Your task to perform on an android device: Set the phone to "Do not disturb". Image 0: 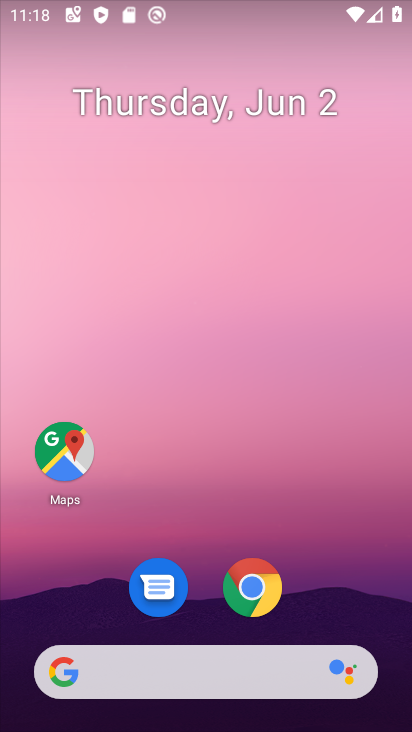
Step 0: drag from (383, 620) to (85, 42)
Your task to perform on an android device: Set the phone to "Do not disturb". Image 1: 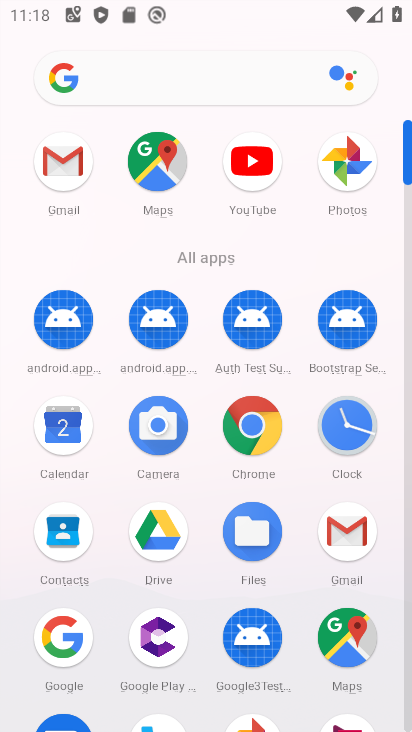
Step 1: drag from (200, 624) to (188, 211)
Your task to perform on an android device: Set the phone to "Do not disturb". Image 2: 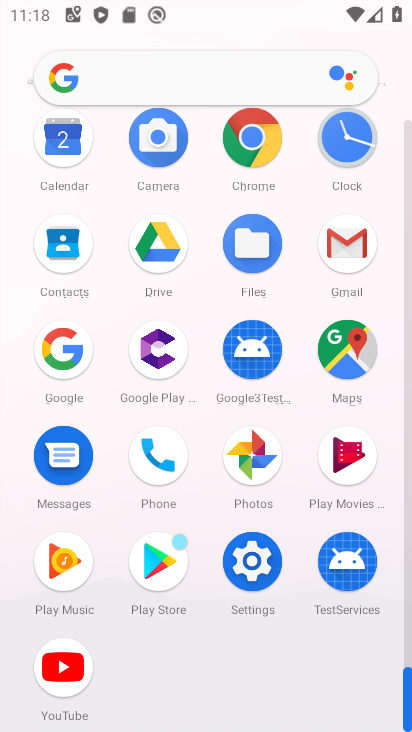
Step 2: click (239, 541)
Your task to perform on an android device: Set the phone to "Do not disturb". Image 3: 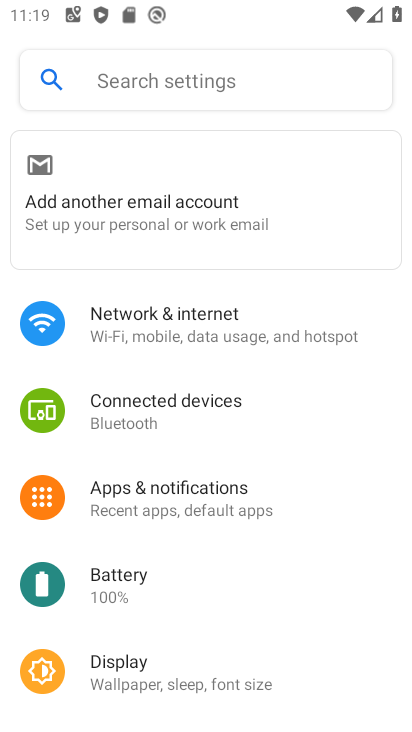
Step 3: drag from (210, 689) to (247, 307)
Your task to perform on an android device: Set the phone to "Do not disturb". Image 4: 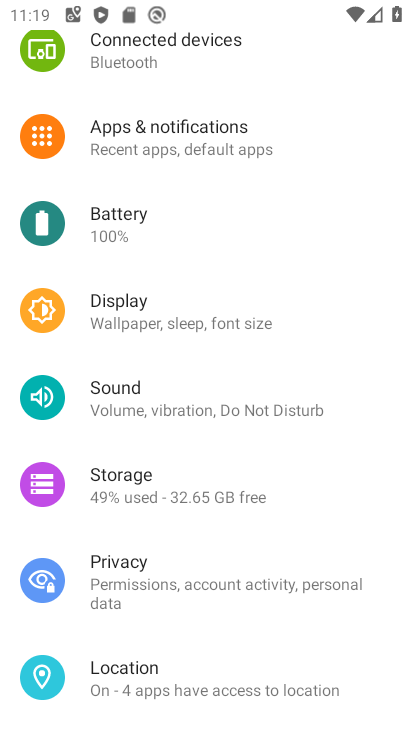
Step 4: drag from (200, 604) to (205, 523)
Your task to perform on an android device: Set the phone to "Do not disturb". Image 5: 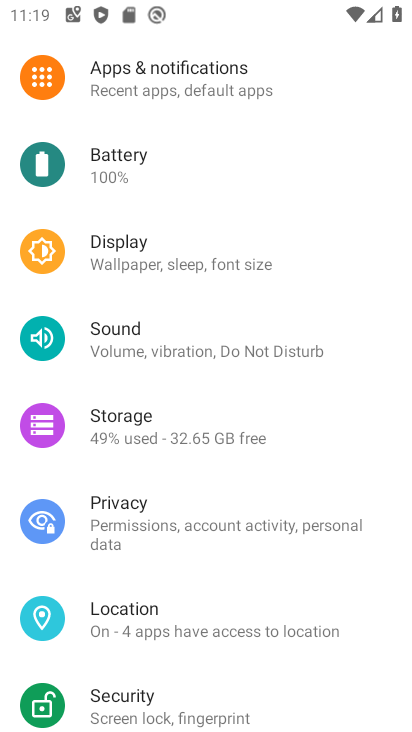
Step 5: click (206, 348)
Your task to perform on an android device: Set the phone to "Do not disturb". Image 6: 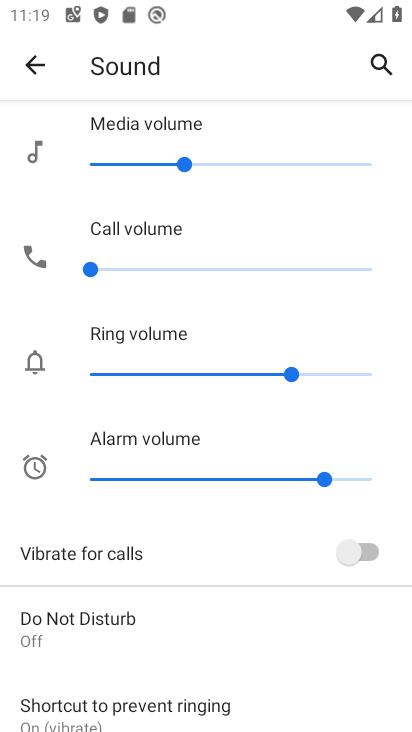
Step 6: click (162, 612)
Your task to perform on an android device: Set the phone to "Do not disturb". Image 7: 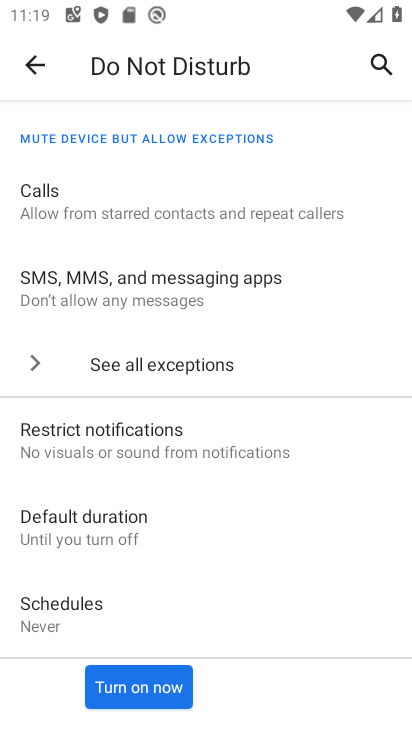
Step 7: click (171, 678)
Your task to perform on an android device: Set the phone to "Do not disturb". Image 8: 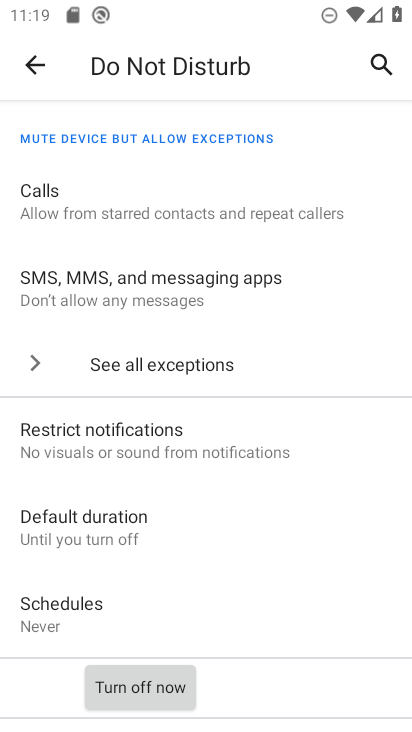
Step 8: task complete